Your task to perform on an android device: open chrome privacy settings Image 0: 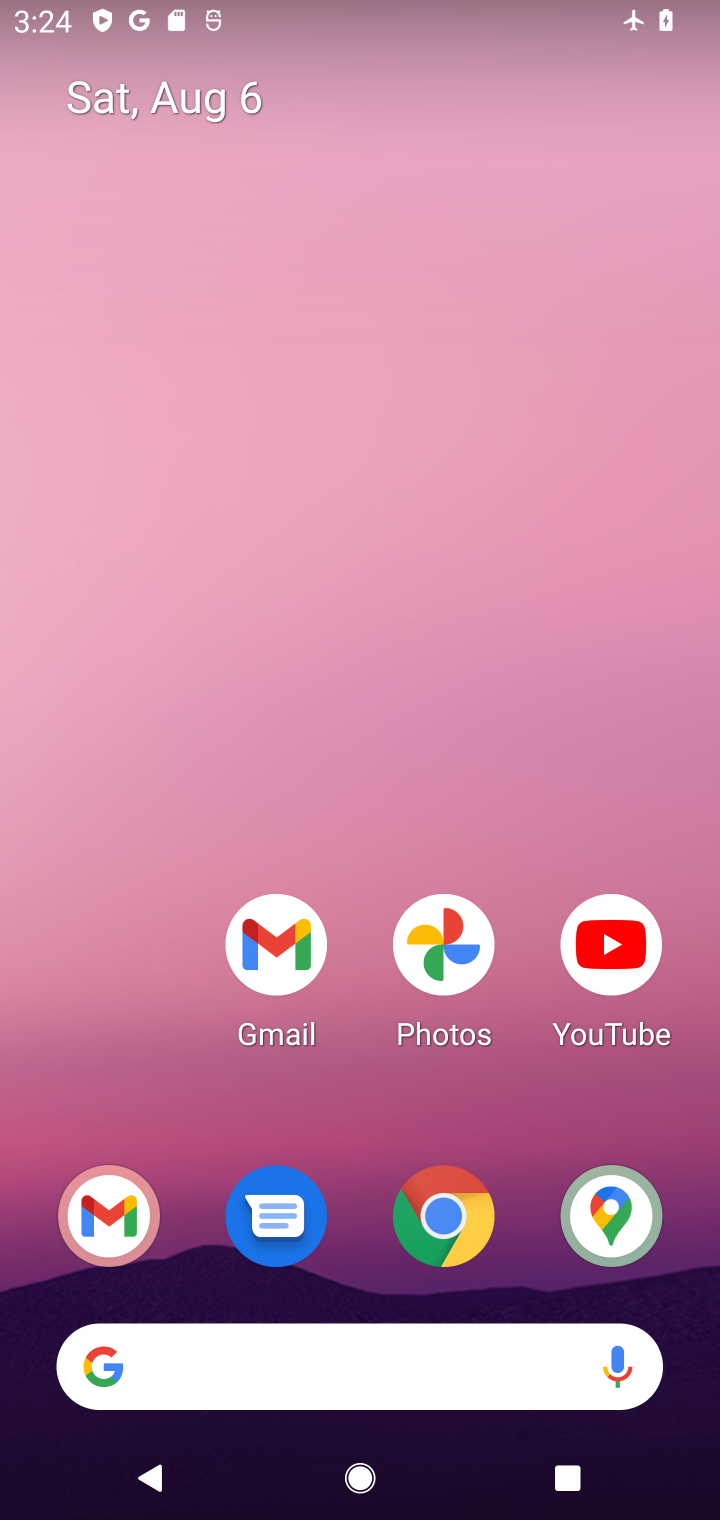
Step 0: click (442, 1216)
Your task to perform on an android device: open chrome privacy settings Image 1: 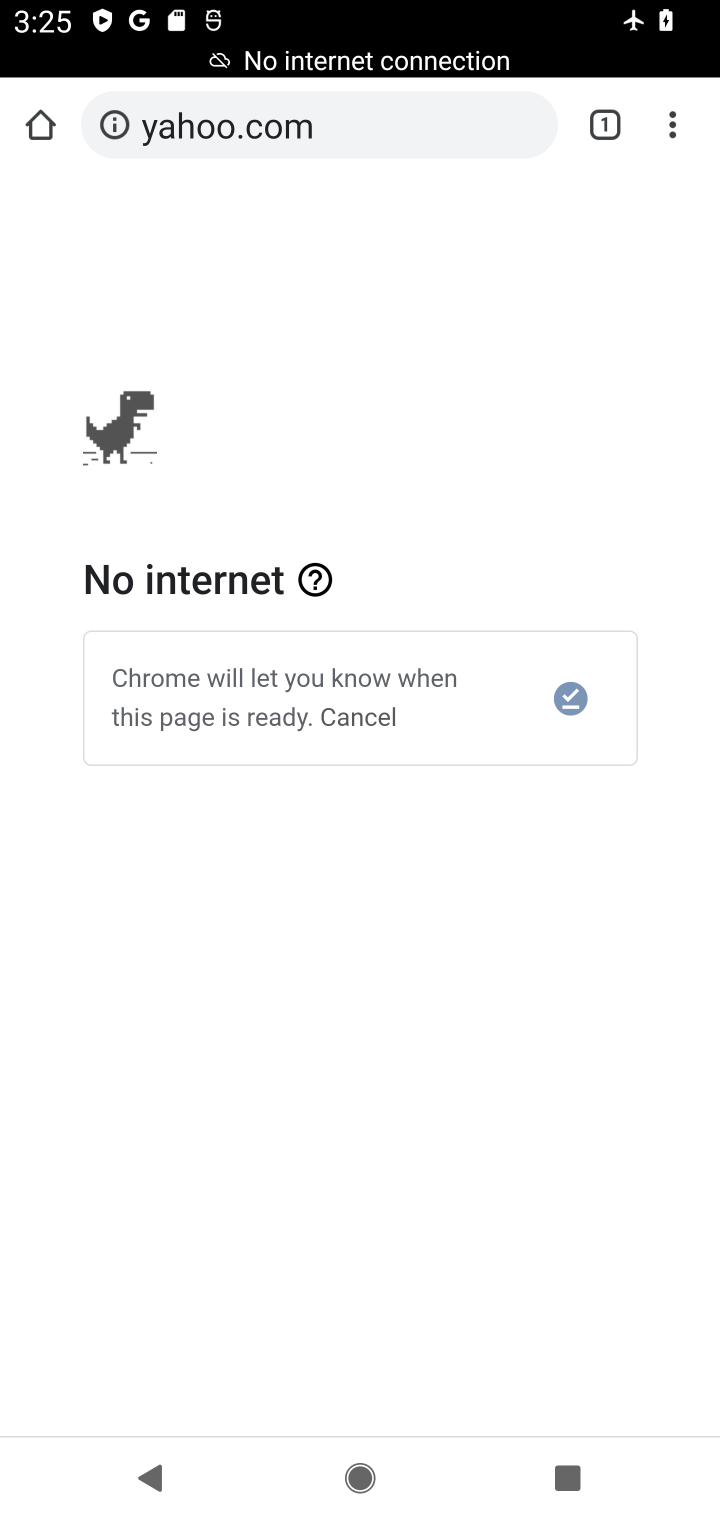
Step 1: click (668, 134)
Your task to perform on an android device: open chrome privacy settings Image 2: 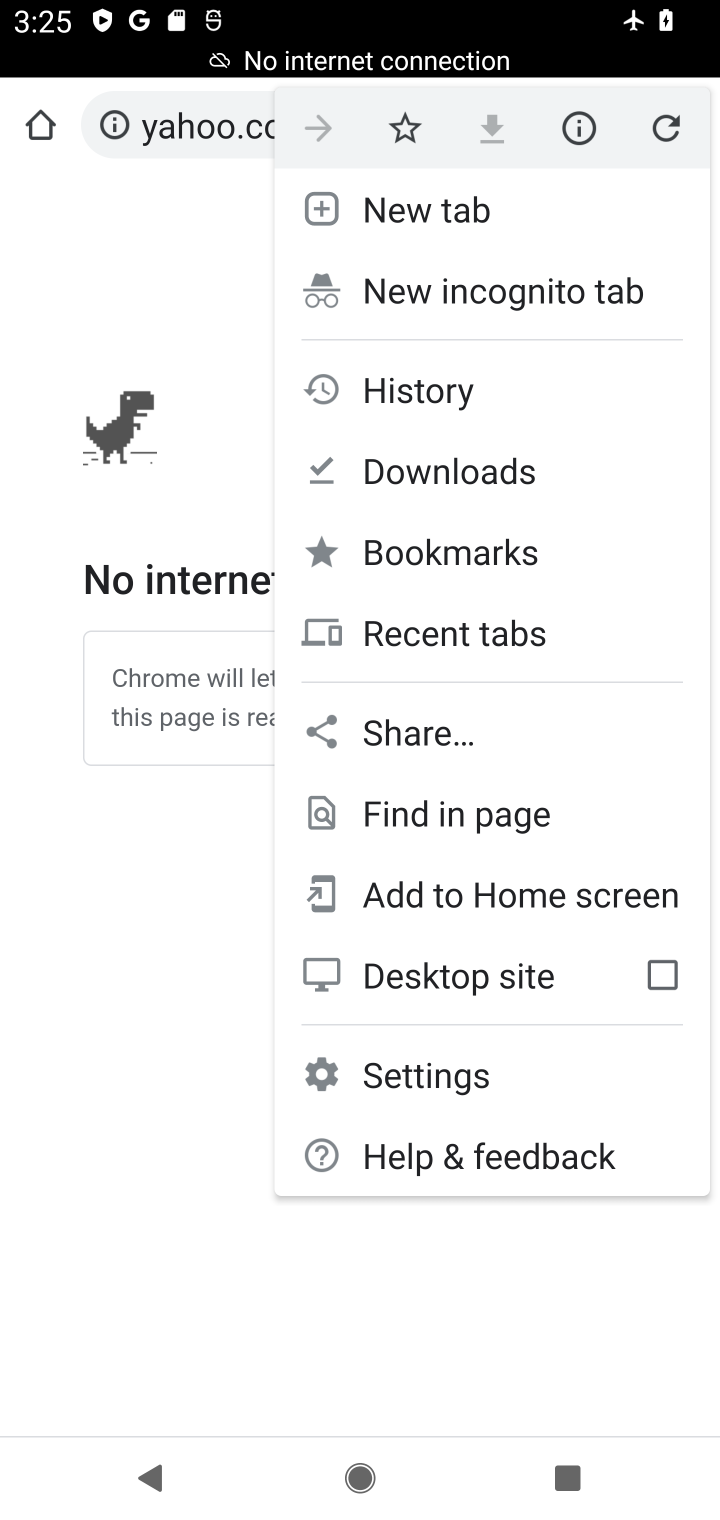
Step 2: click (512, 1053)
Your task to perform on an android device: open chrome privacy settings Image 3: 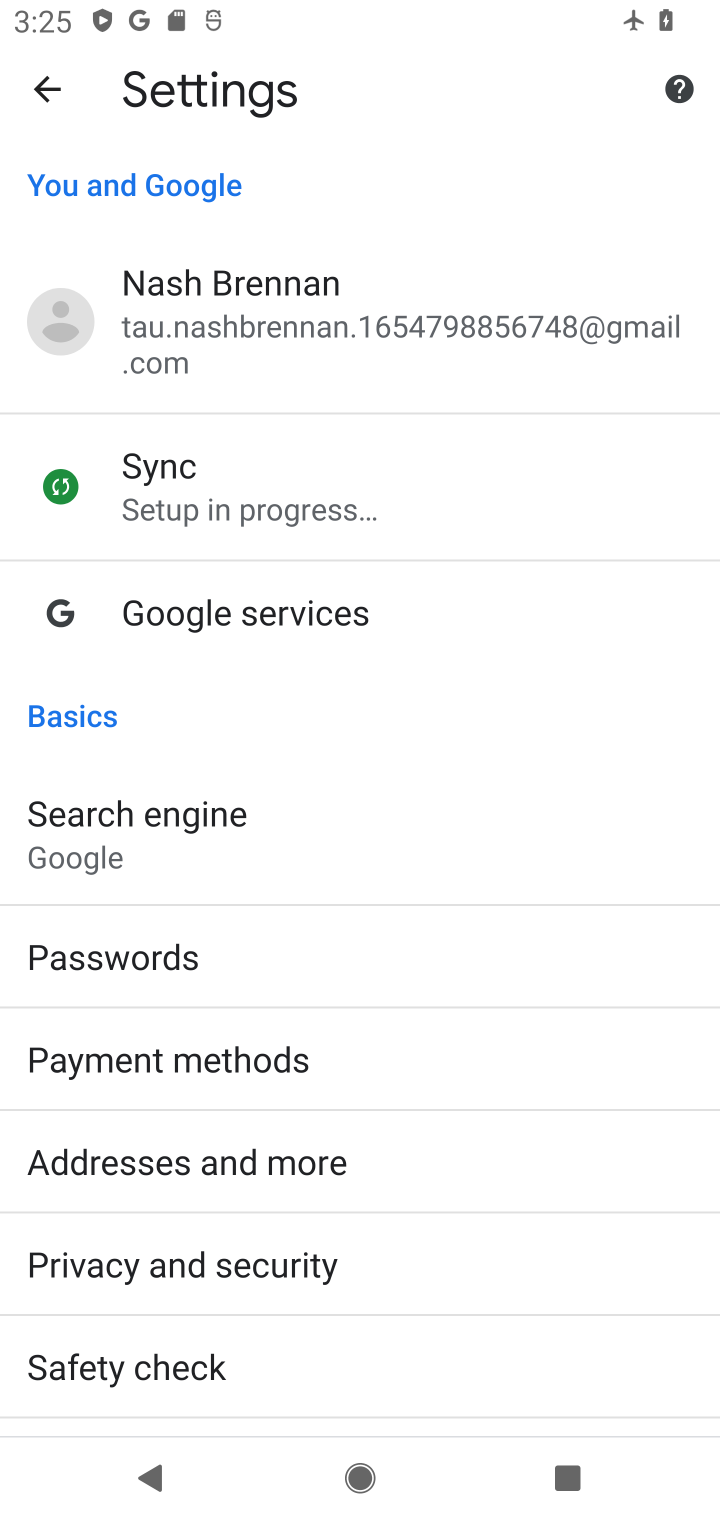
Step 3: click (336, 1254)
Your task to perform on an android device: open chrome privacy settings Image 4: 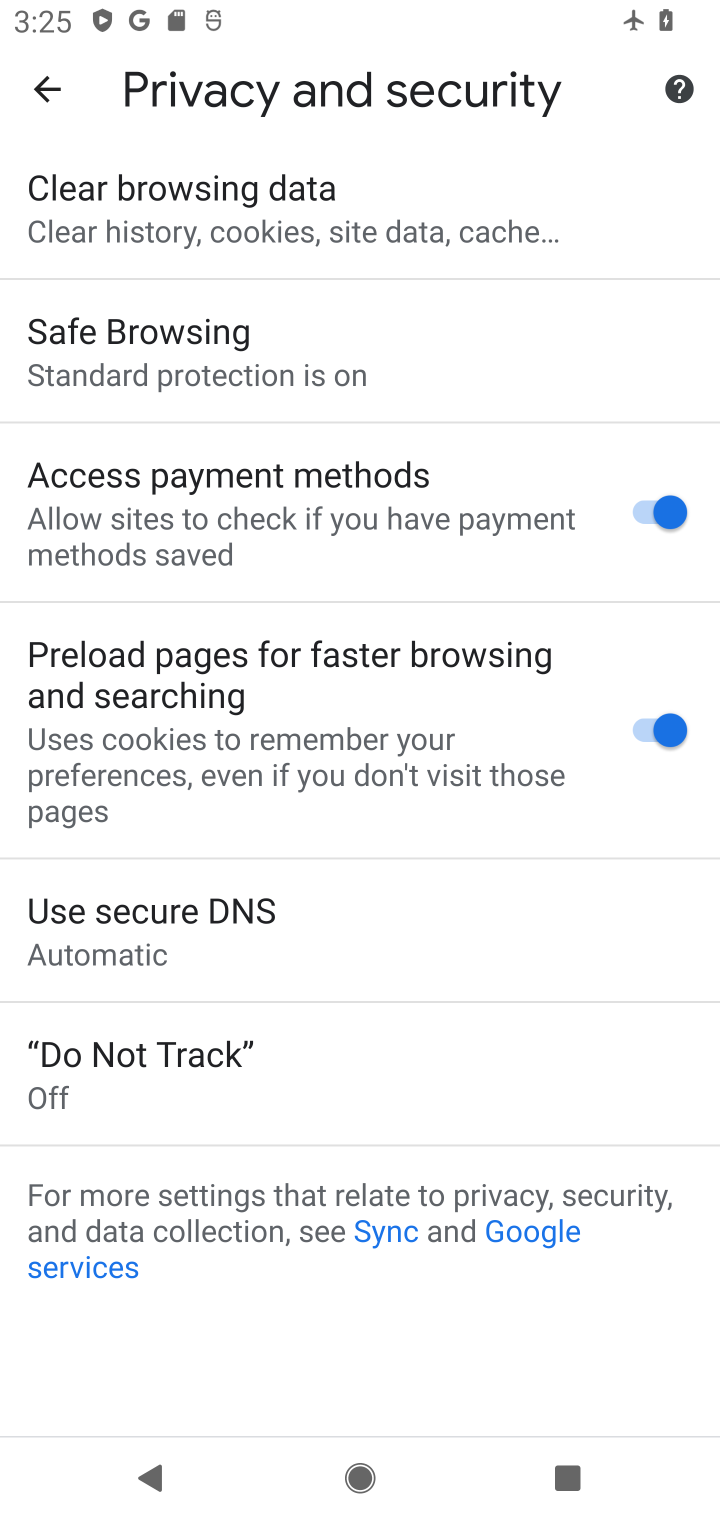
Step 4: task complete